Your task to perform on an android device: Open settings Image 0: 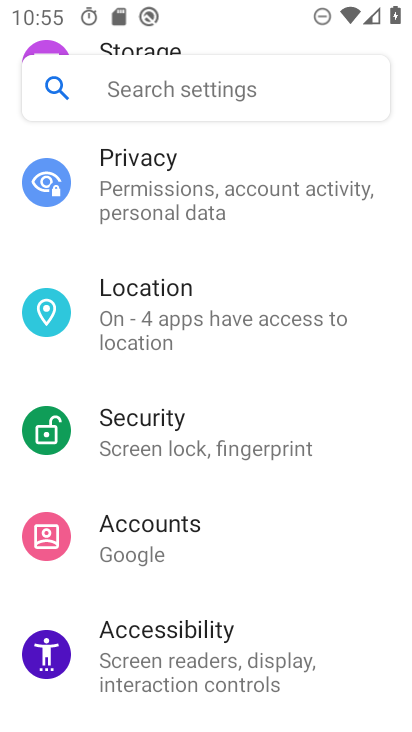
Step 0: task complete